Your task to perform on an android device: Go to internet settings Image 0: 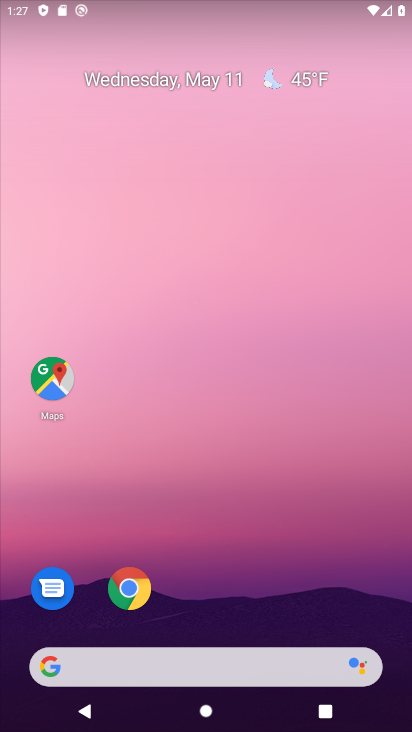
Step 0: drag from (245, 645) to (327, 207)
Your task to perform on an android device: Go to internet settings Image 1: 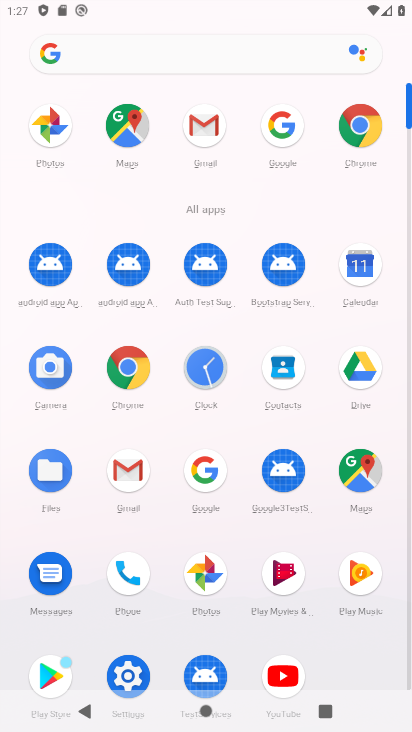
Step 1: click (144, 686)
Your task to perform on an android device: Go to internet settings Image 2: 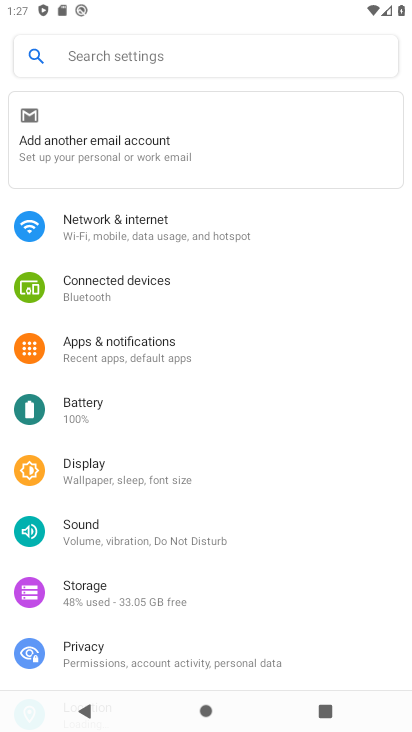
Step 2: click (180, 238)
Your task to perform on an android device: Go to internet settings Image 3: 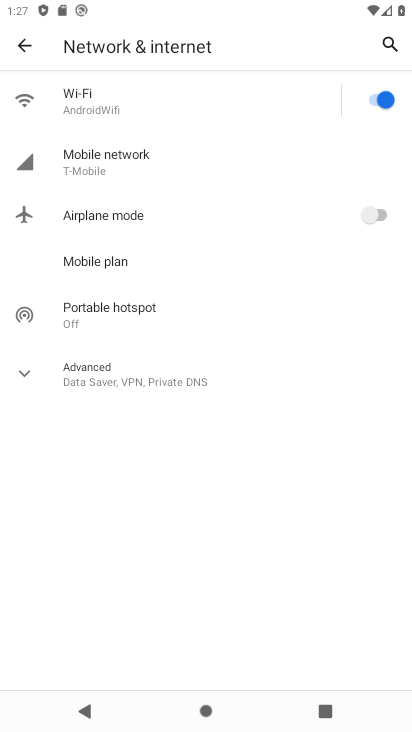
Step 3: click (160, 150)
Your task to perform on an android device: Go to internet settings Image 4: 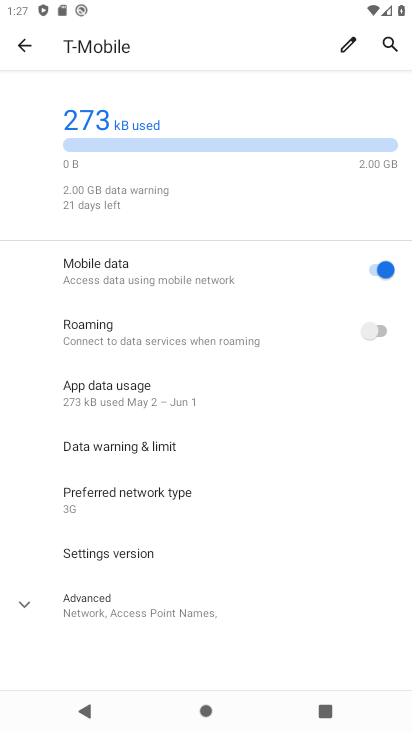
Step 4: task complete